Your task to perform on an android device: open a new tab in the chrome app Image 0: 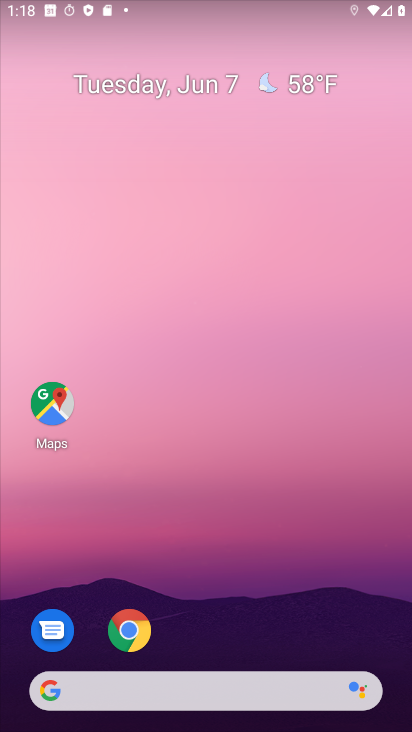
Step 0: click (128, 640)
Your task to perform on an android device: open a new tab in the chrome app Image 1: 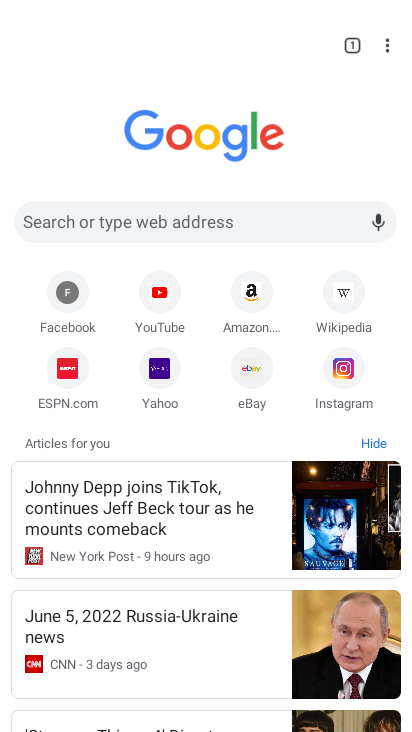
Step 1: click (389, 38)
Your task to perform on an android device: open a new tab in the chrome app Image 2: 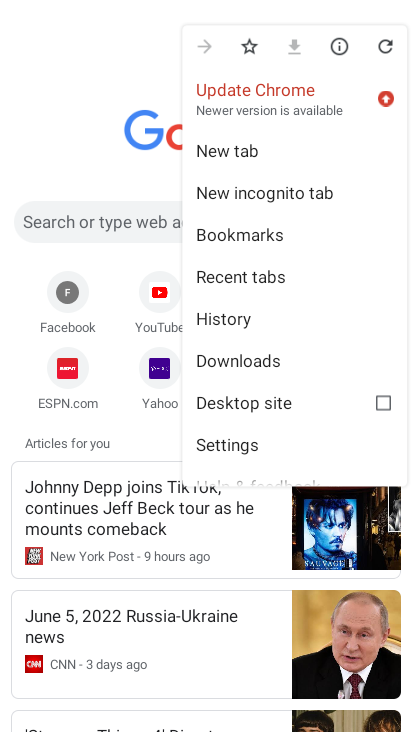
Step 2: click (238, 154)
Your task to perform on an android device: open a new tab in the chrome app Image 3: 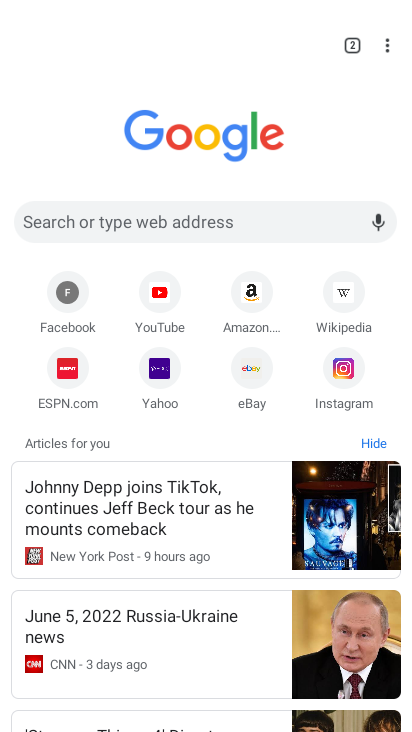
Step 3: task complete